Your task to perform on an android device: Open the calendar app, open the side menu, and click the "Day" option Image 0: 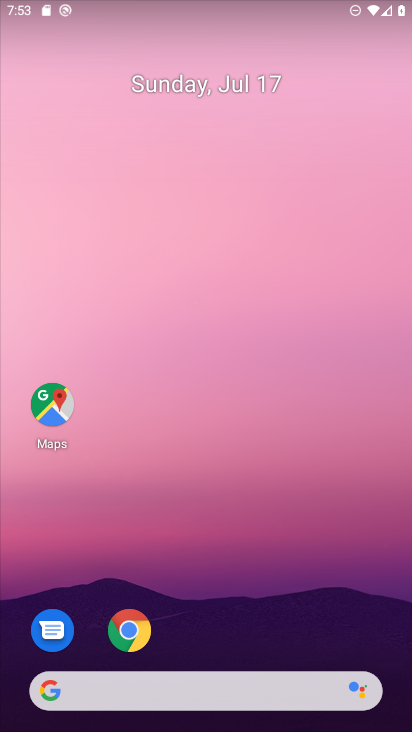
Step 0: drag from (316, 589) to (323, 195)
Your task to perform on an android device: Open the calendar app, open the side menu, and click the "Day" option Image 1: 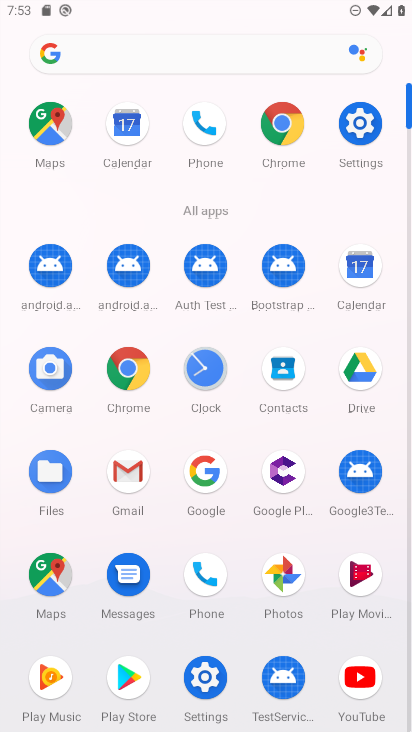
Step 1: click (357, 267)
Your task to perform on an android device: Open the calendar app, open the side menu, and click the "Day" option Image 2: 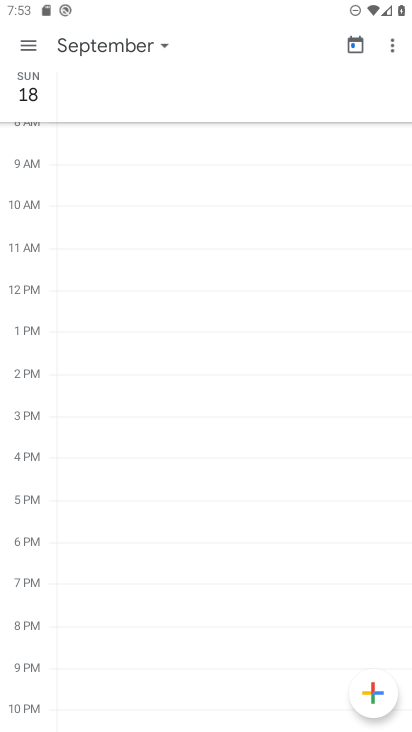
Step 2: click (27, 50)
Your task to perform on an android device: Open the calendar app, open the side menu, and click the "Day" option Image 3: 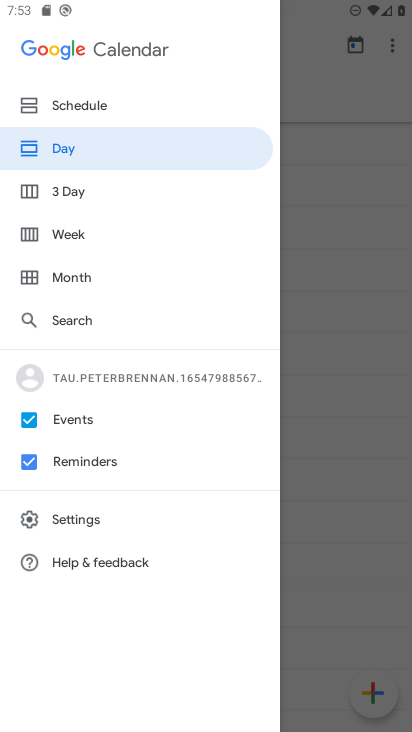
Step 3: click (83, 148)
Your task to perform on an android device: Open the calendar app, open the side menu, and click the "Day" option Image 4: 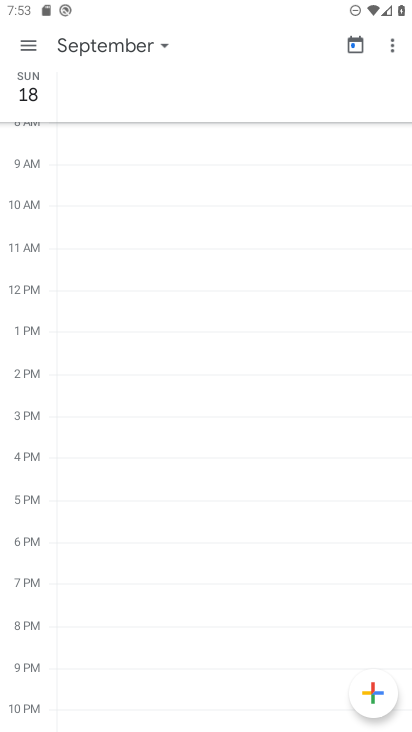
Step 4: task complete